Your task to perform on an android device: turn on showing notifications on the lock screen Image 0: 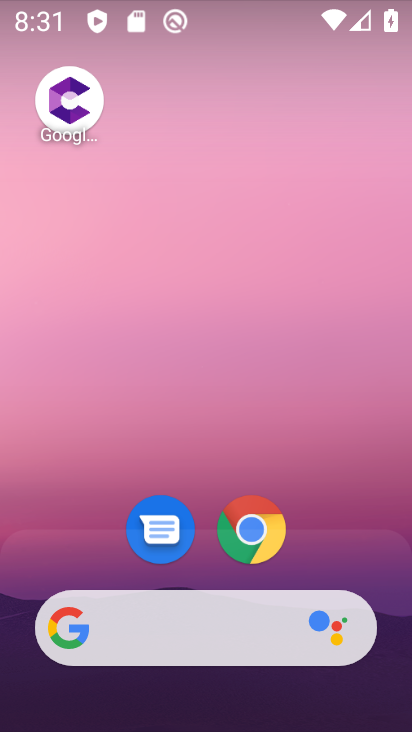
Step 0: drag from (353, 555) to (223, 0)
Your task to perform on an android device: turn on showing notifications on the lock screen Image 1: 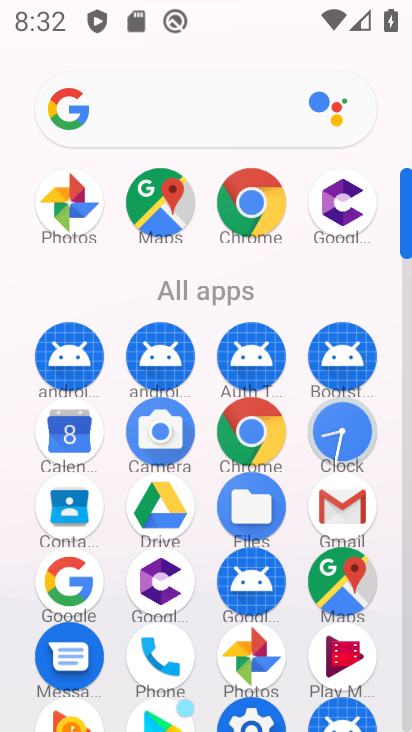
Step 1: drag from (113, 690) to (140, 145)
Your task to perform on an android device: turn on showing notifications on the lock screen Image 2: 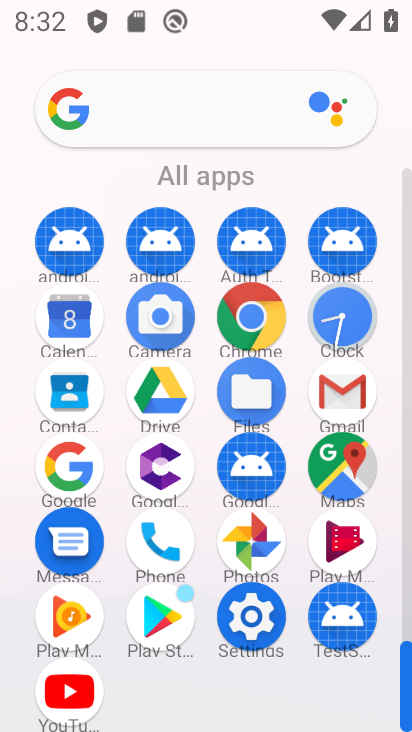
Step 2: click (257, 587)
Your task to perform on an android device: turn on showing notifications on the lock screen Image 3: 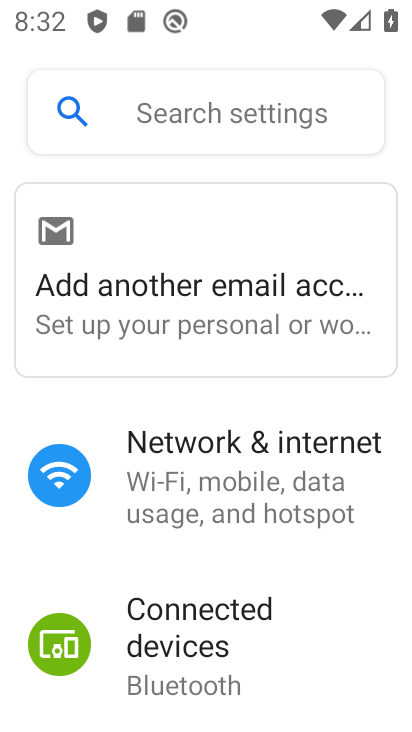
Step 3: drag from (299, 653) to (302, 82)
Your task to perform on an android device: turn on showing notifications on the lock screen Image 4: 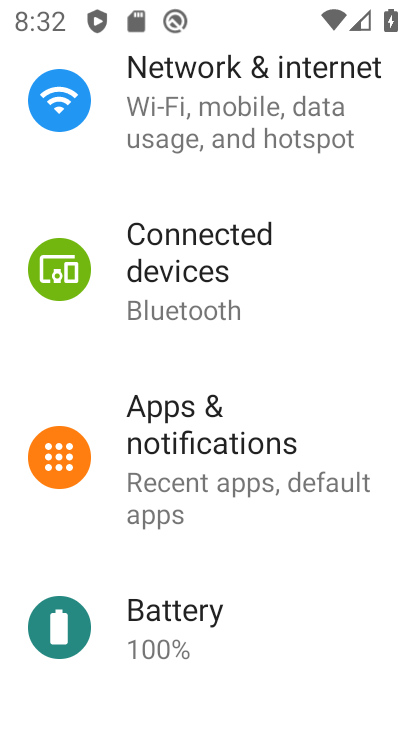
Step 4: click (217, 454)
Your task to perform on an android device: turn on showing notifications on the lock screen Image 5: 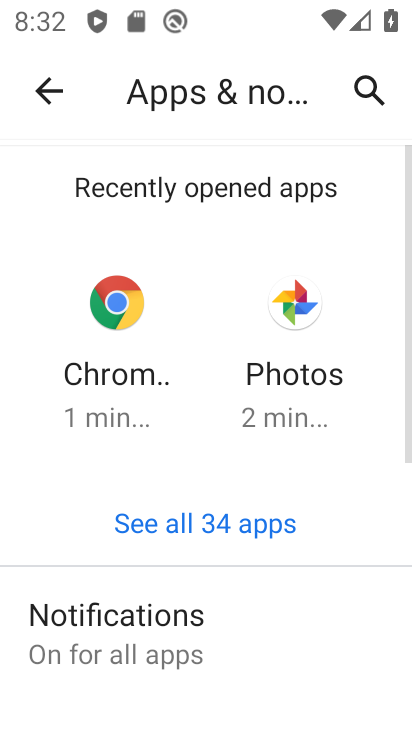
Step 5: click (183, 631)
Your task to perform on an android device: turn on showing notifications on the lock screen Image 6: 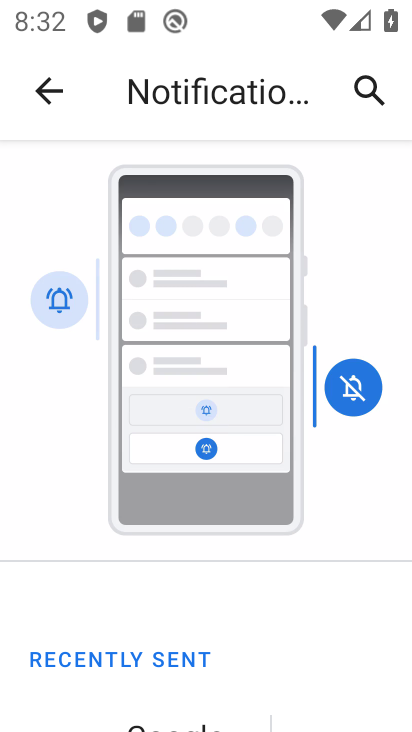
Step 6: drag from (281, 687) to (311, 185)
Your task to perform on an android device: turn on showing notifications on the lock screen Image 7: 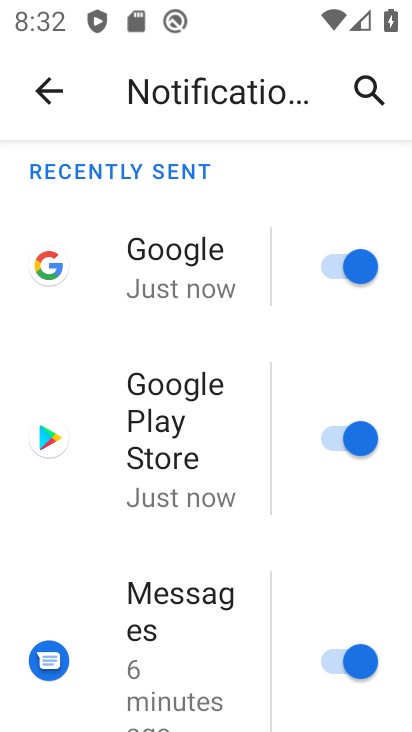
Step 7: drag from (211, 420) to (211, 259)
Your task to perform on an android device: turn on showing notifications on the lock screen Image 8: 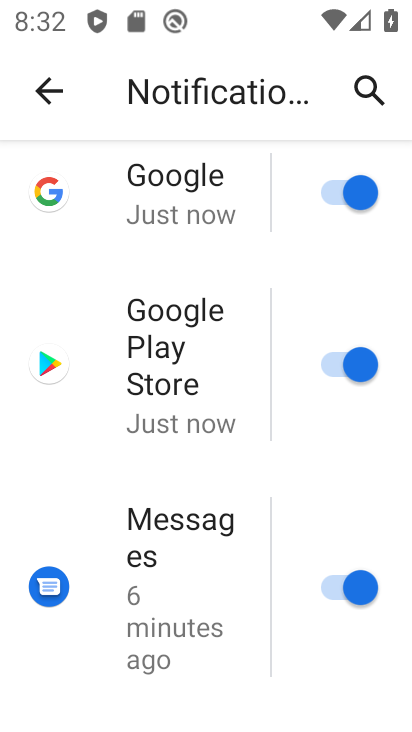
Step 8: drag from (191, 655) to (179, 136)
Your task to perform on an android device: turn on showing notifications on the lock screen Image 9: 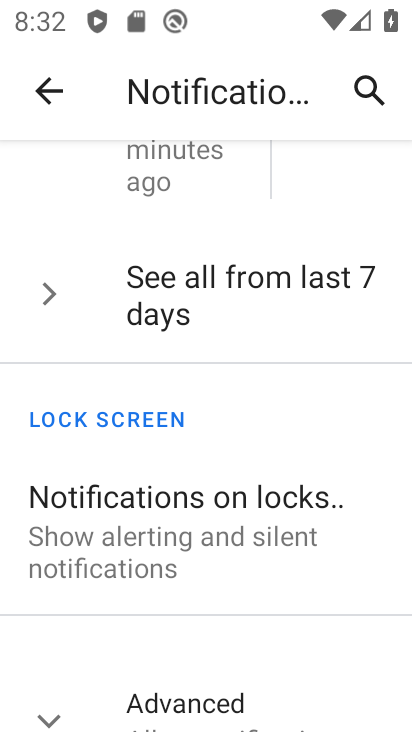
Step 9: click (191, 547)
Your task to perform on an android device: turn on showing notifications on the lock screen Image 10: 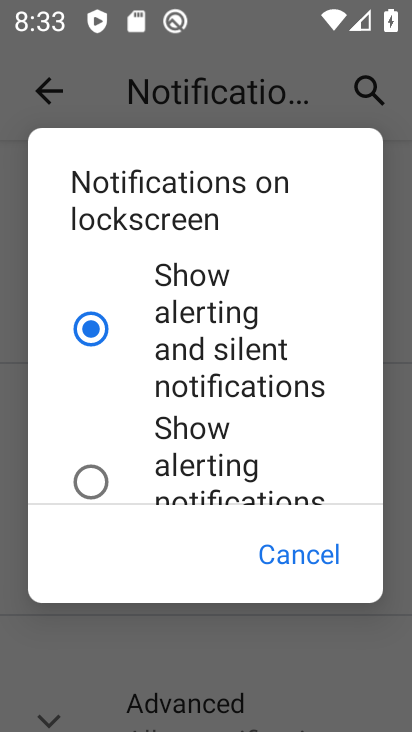
Step 10: task complete